Your task to perform on an android device: Open Google Chrome Image 0: 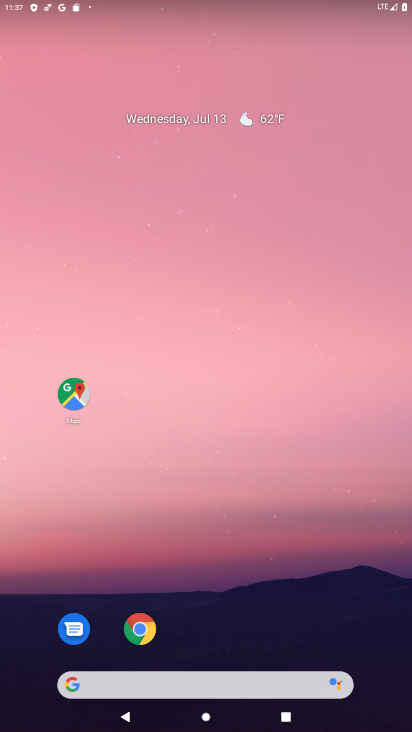
Step 0: click (148, 629)
Your task to perform on an android device: Open Google Chrome Image 1: 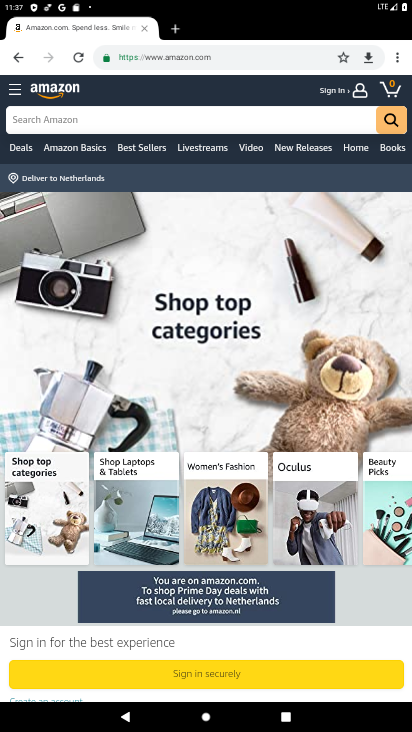
Step 1: task complete